Your task to perform on an android device: Show me popular videos on Youtube Image 0: 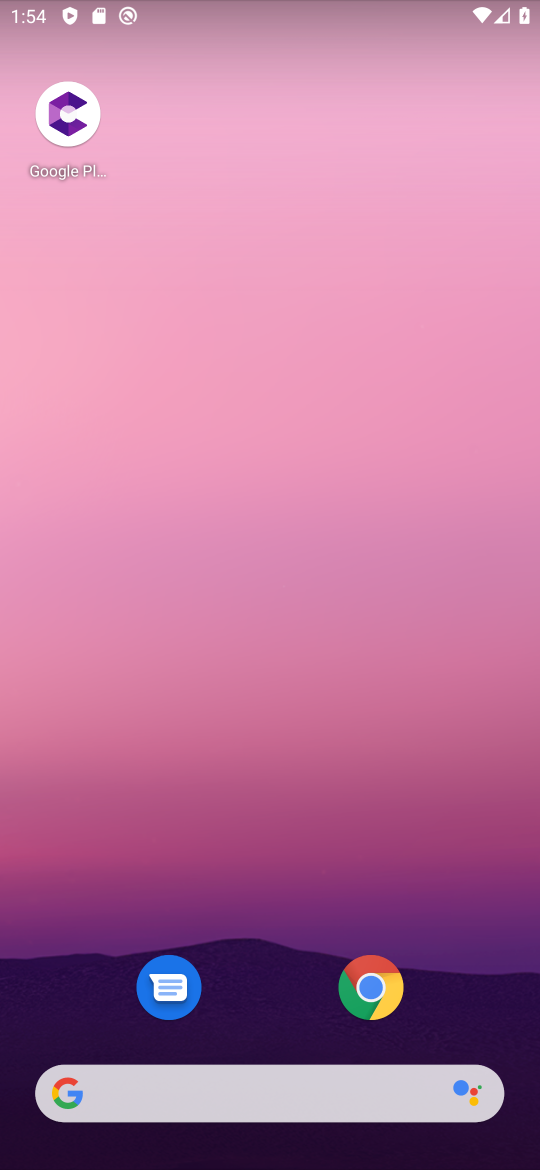
Step 0: drag from (338, 1161) to (344, 334)
Your task to perform on an android device: Show me popular videos on Youtube Image 1: 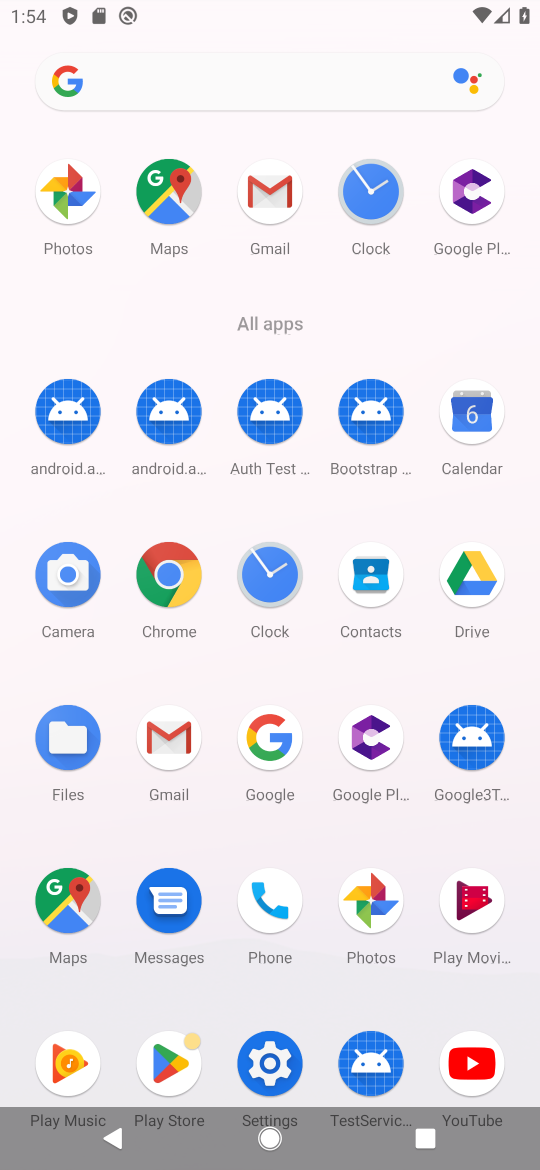
Step 1: click (459, 1046)
Your task to perform on an android device: Show me popular videos on Youtube Image 2: 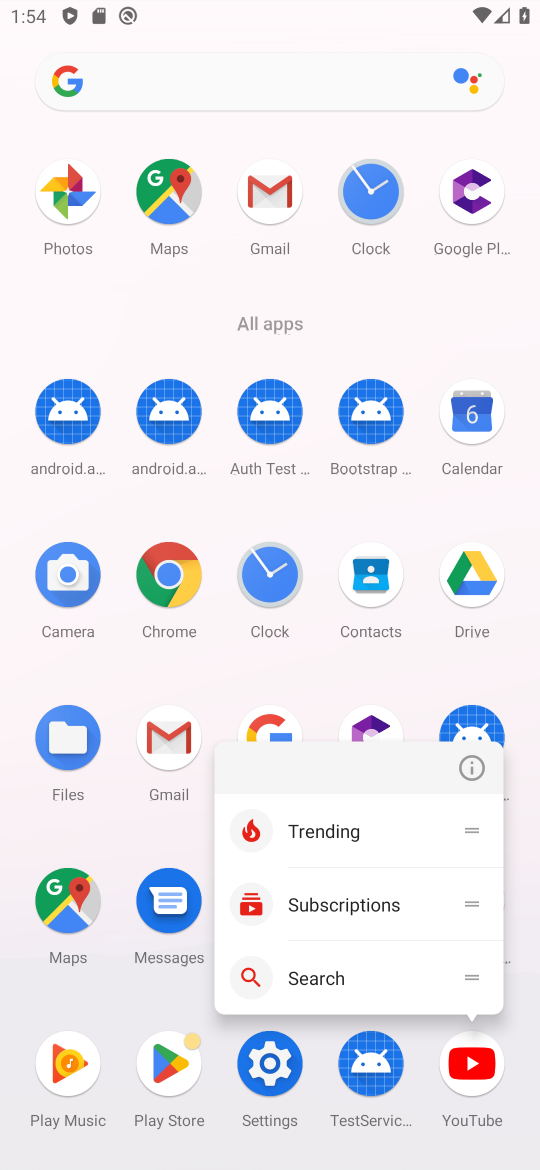
Step 2: click (459, 1046)
Your task to perform on an android device: Show me popular videos on Youtube Image 3: 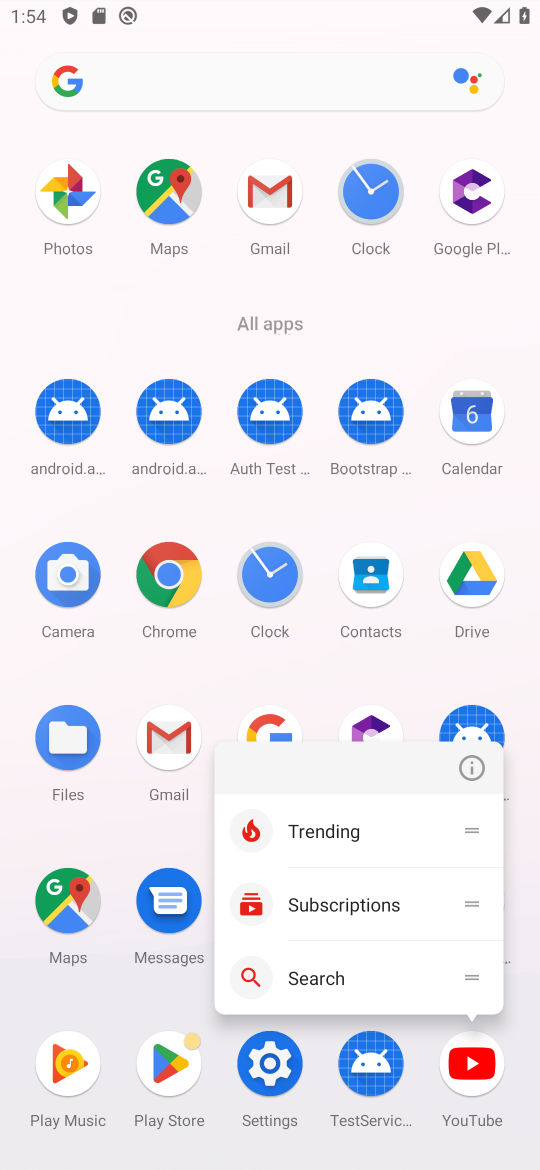
Step 3: click (459, 1051)
Your task to perform on an android device: Show me popular videos on Youtube Image 4: 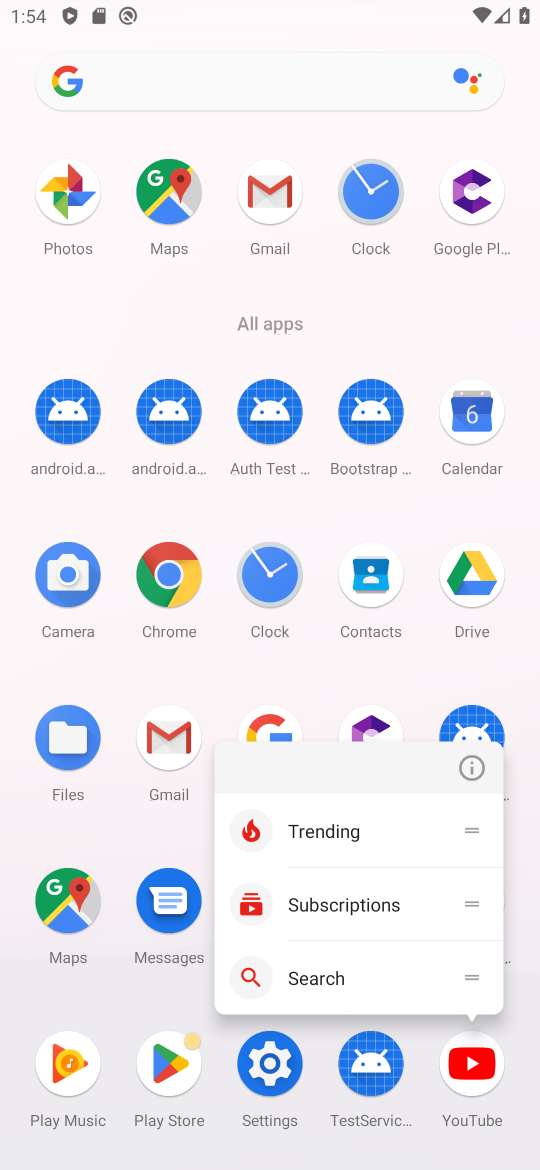
Step 4: click (473, 1084)
Your task to perform on an android device: Show me popular videos on Youtube Image 5: 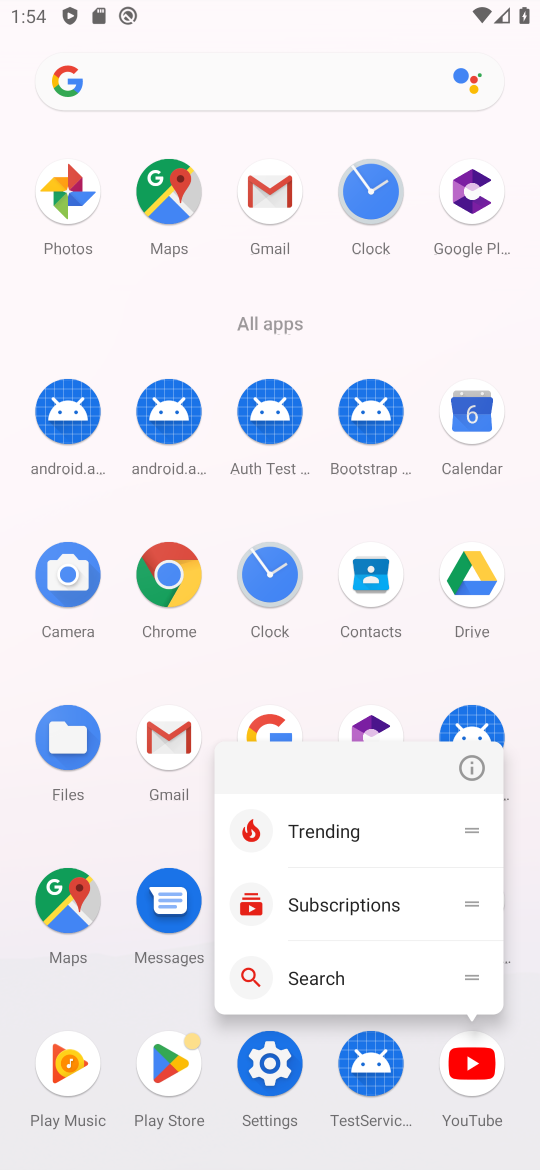
Step 5: click (473, 1084)
Your task to perform on an android device: Show me popular videos on Youtube Image 6: 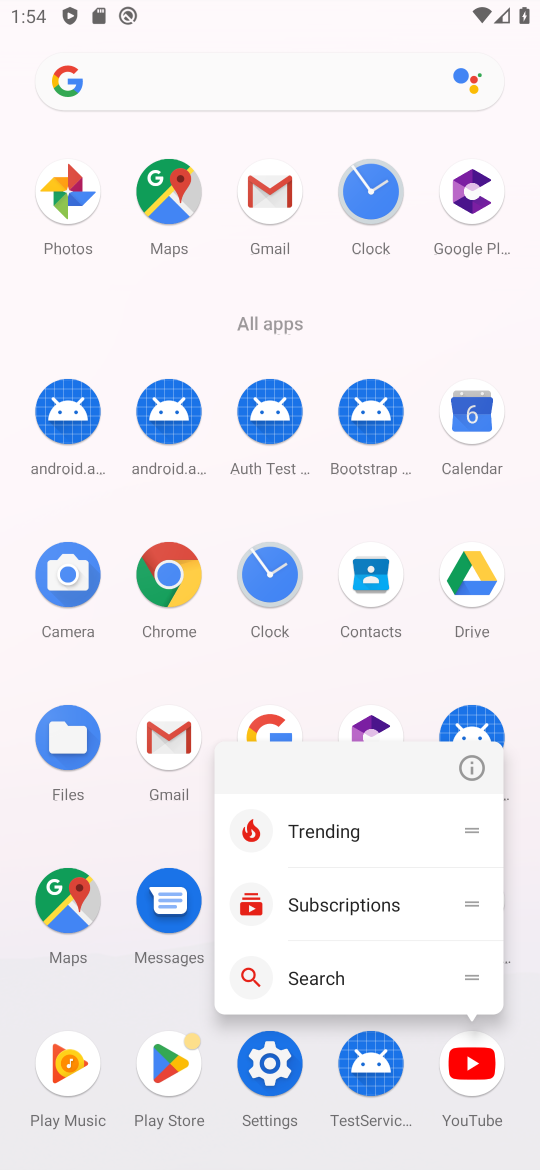
Step 6: click (475, 1066)
Your task to perform on an android device: Show me popular videos on Youtube Image 7: 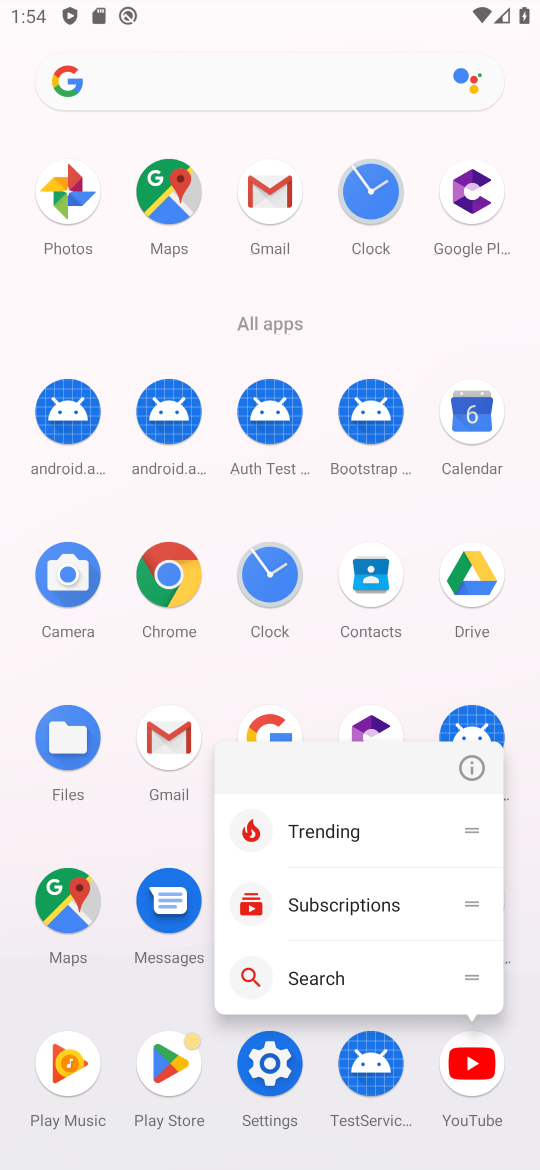
Step 7: click (475, 1073)
Your task to perform on an android device: Show me popular videos on Youtube Image 8: 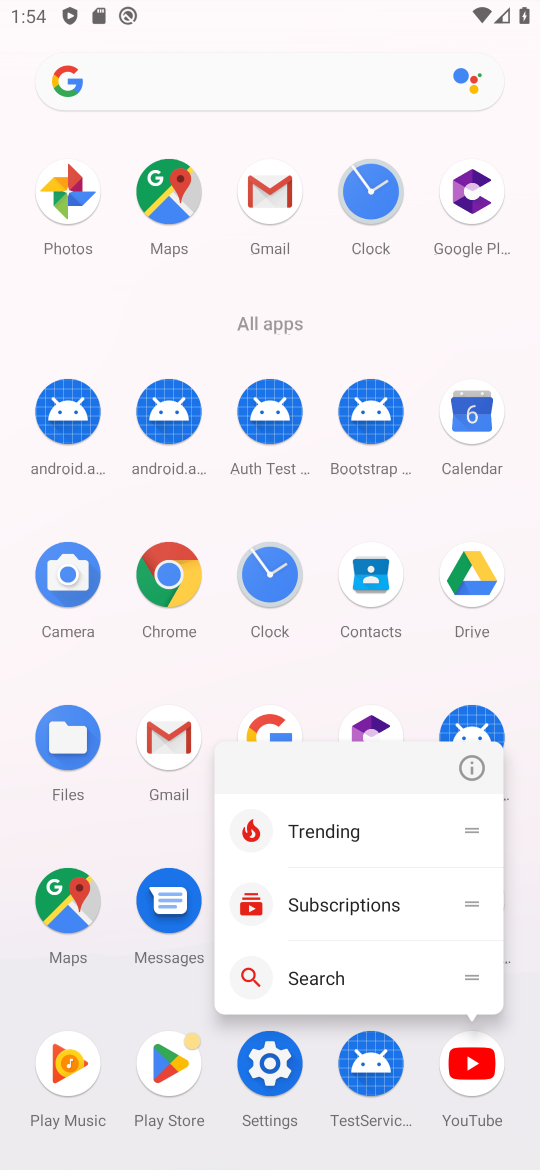
Step 8: click (485, 1082)
Your task to perform on an android device: Show me popular videos on Youtube Image 9: 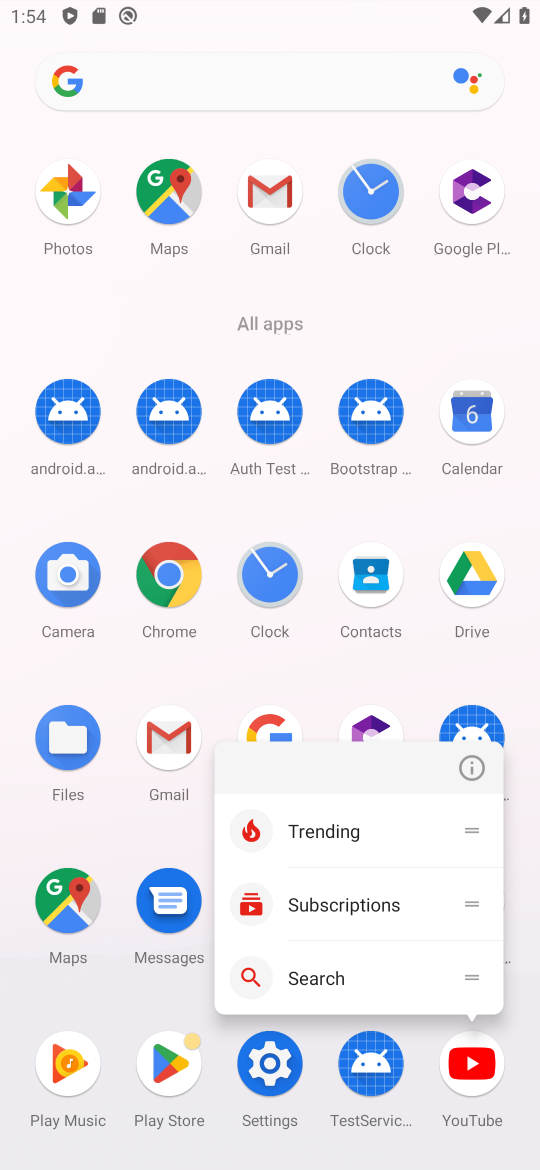
Step 9: click (466, 1078)
Your task to perform on an android device: Show me popular videos on Youtube Image 10: 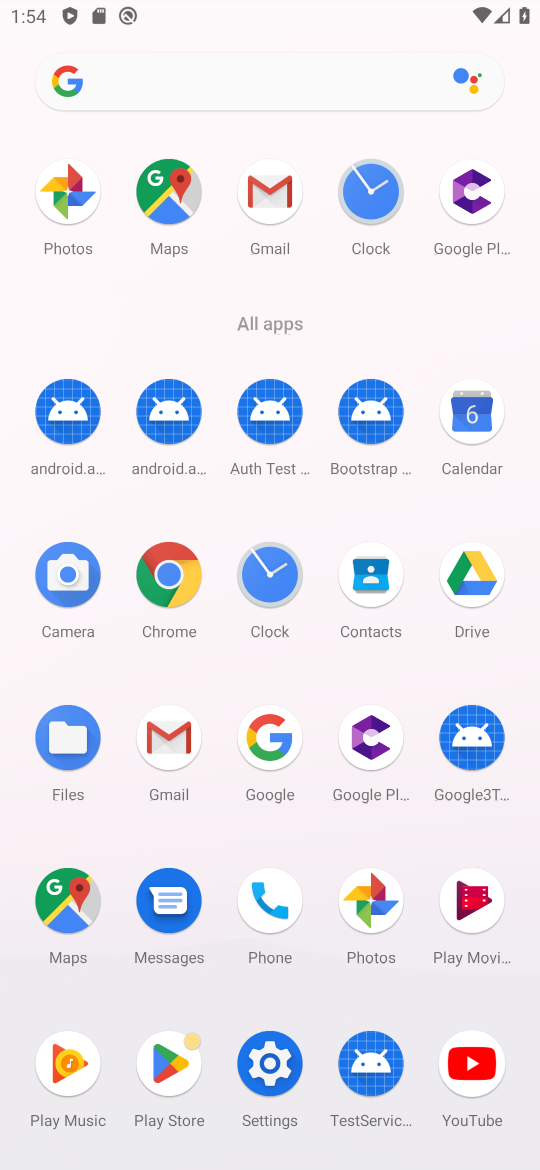
Step 10: click (474, 1085)
Your task to perform on an android device: Show me popular videos on Youtube Image 11: 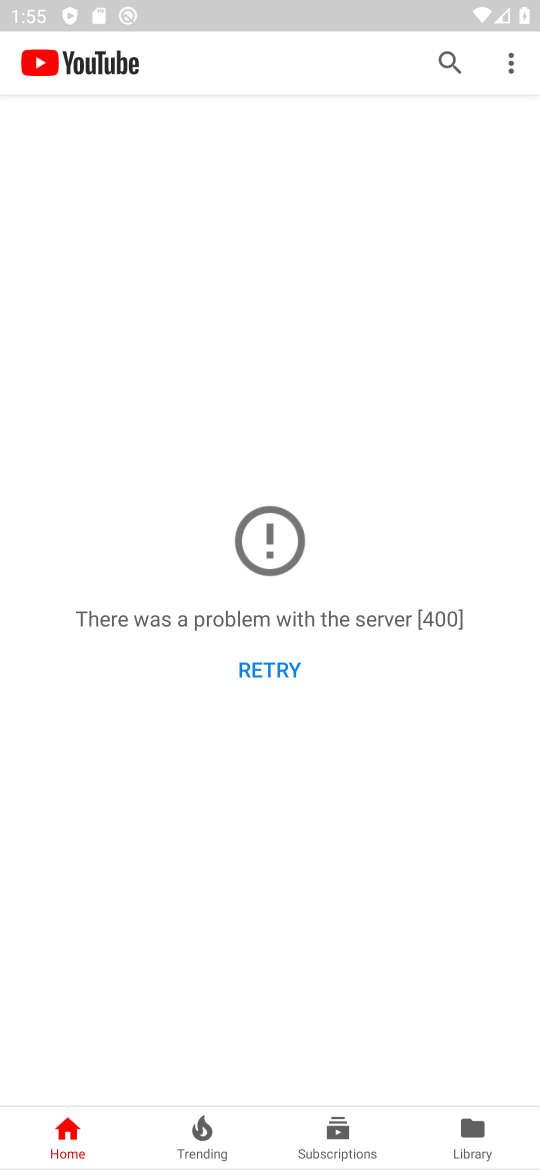
Step 11: click (253, 660)
Your task to perform on an android device: Show me popular videos on Youtube Image 12: 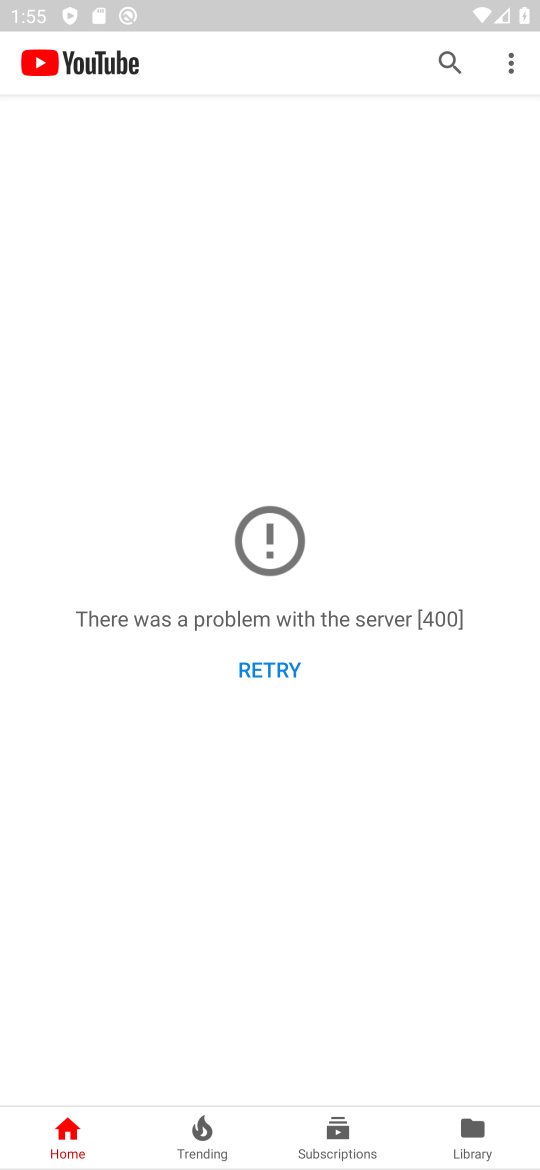
Step 12: click (260, 666)
Your task to perform on an android device: Show me popular videos on Youtube Image 13: 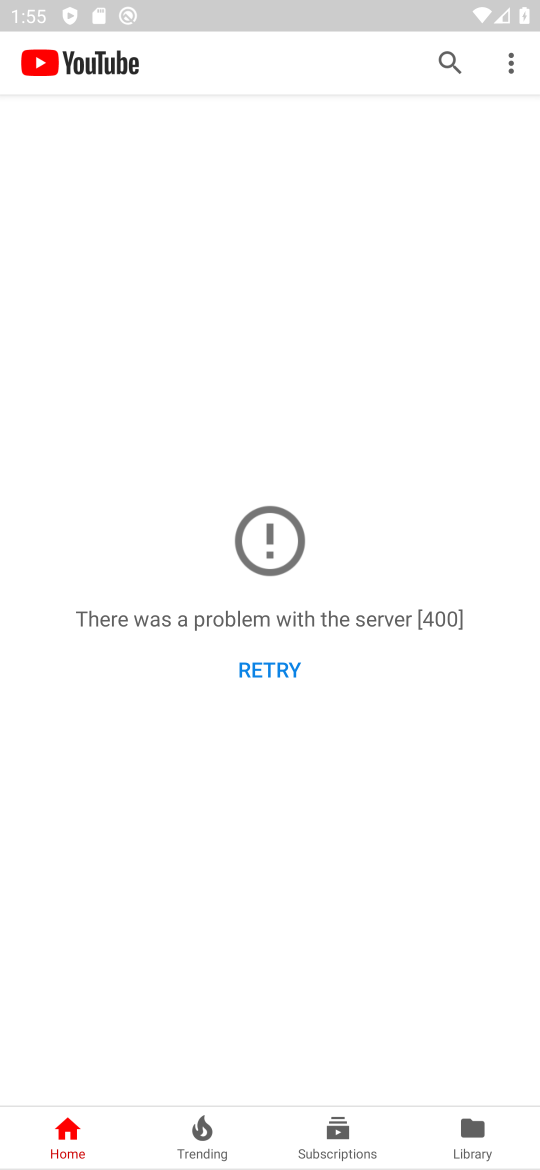
Step 13: task complete